Your task to perform on an android device: empty trash in the gmail app Image 0: 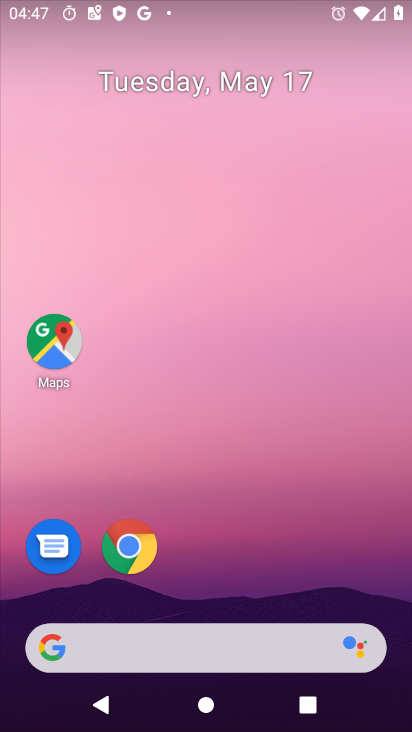
Step 0: click (399, 382)
Your task to perform on an android device: empty trash in the gmail app Image 1: 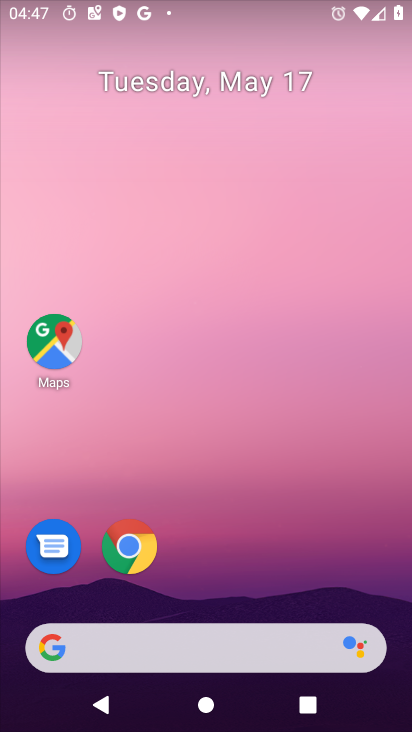
Step 1: drag from (387, 463) to (383, 330)
Your task to perform on an android device: empty trash in the gmail app Image 2: 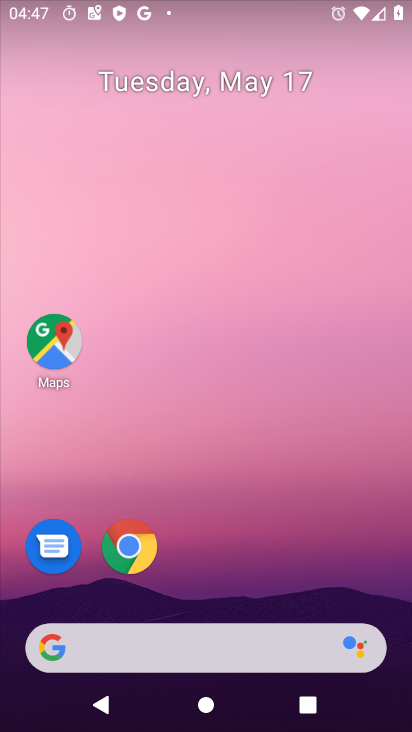
Step 2: drag from (406, 684) to (353, 298)
Your task to perform on an android device: empty trash in the gmail app Image 3: 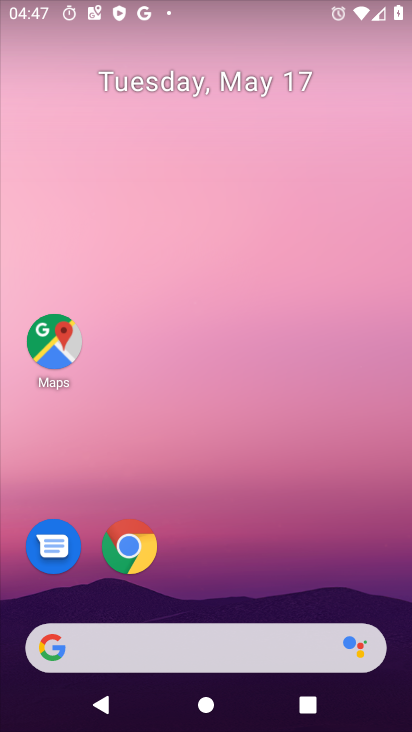
Step 3: drag from (402, 670) to (381, 373)
Your task to perform on an android device: empty trash in the gmail app Image 4: 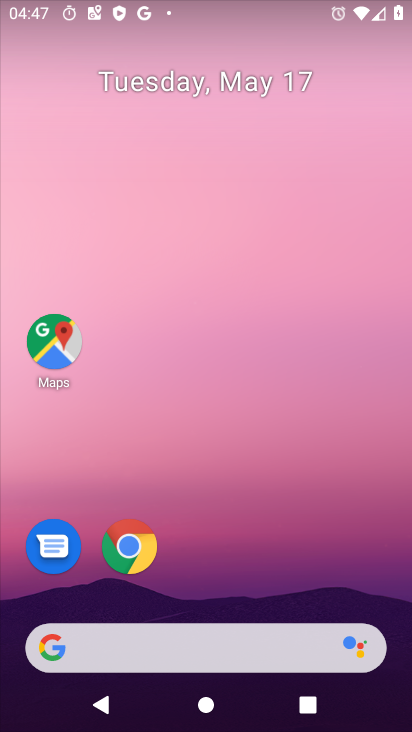
Step 4: click (373, 438)
Your task to perform on an android device: empty trash in the gmail app Image 5: 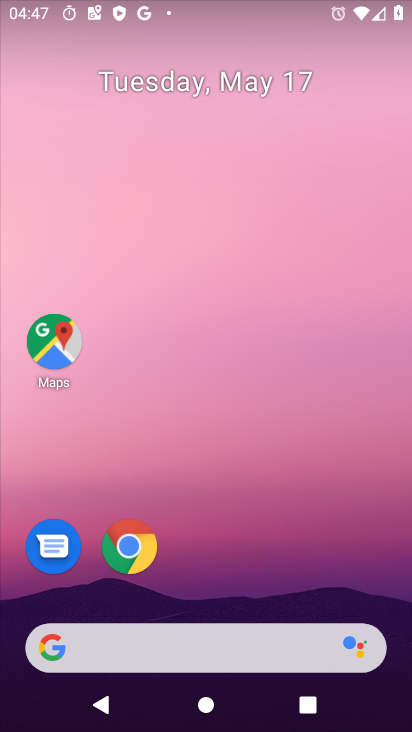
Step 5: drag from (398, 639) to (357, 286)
Your task to perform on an android device: empty trash in the gmail app Image 6: 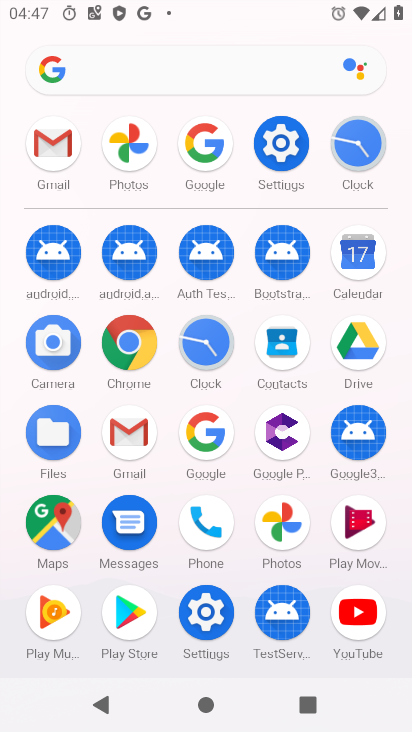
Step 6: click (147, 436)
Your task to perform on an android device: empty trash in the gmail app Image 7: 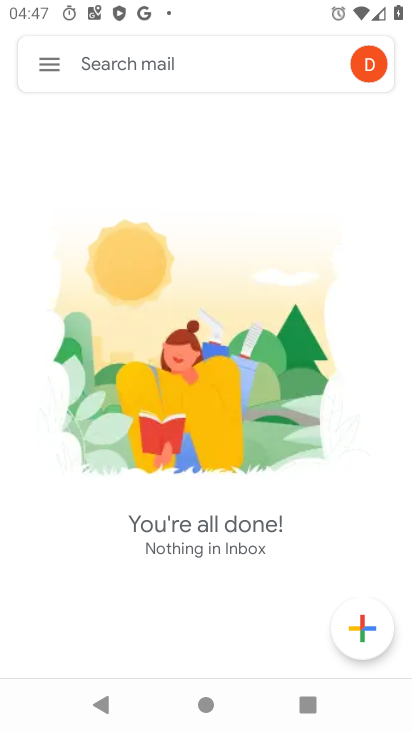
Step 7: click (53, 73)
Your task to perform on an android device: empty trash in the gmail app Image 8: 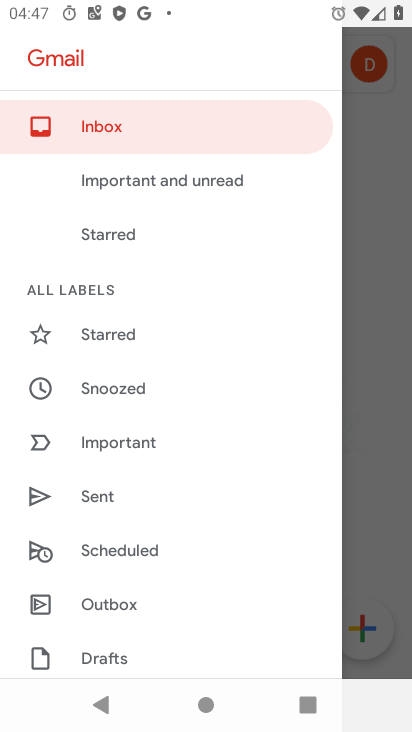
Step 8: drag from (228, 535) to (239, 339)
Your task to perform on an android device: empty trash in the gmail app Image 9: 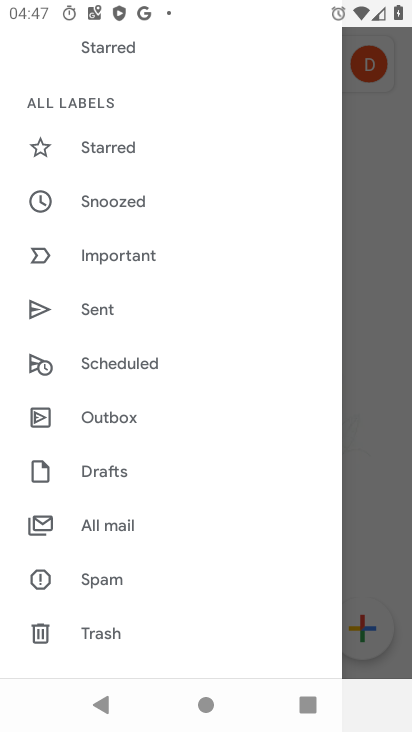
Step 9: click (78, 632)
Your task to perform on an android device: empty trash in the gmail app Image 10: 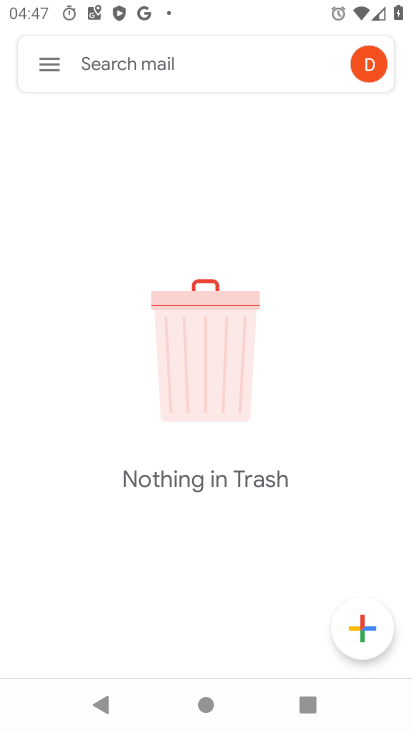
Step 10: task complete